Your task to perform on an android device: Search for seafood restaurants on Google Maps Image 0: 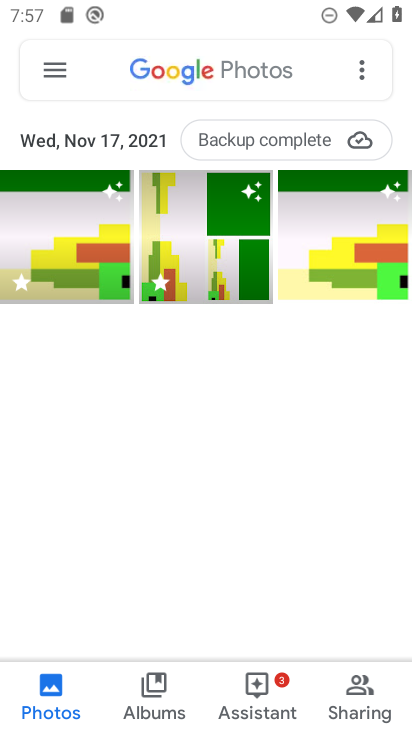
Step 0: press home button
Your task to perform on an android device: Search for seafood restaurants on Google Maps Image 1: 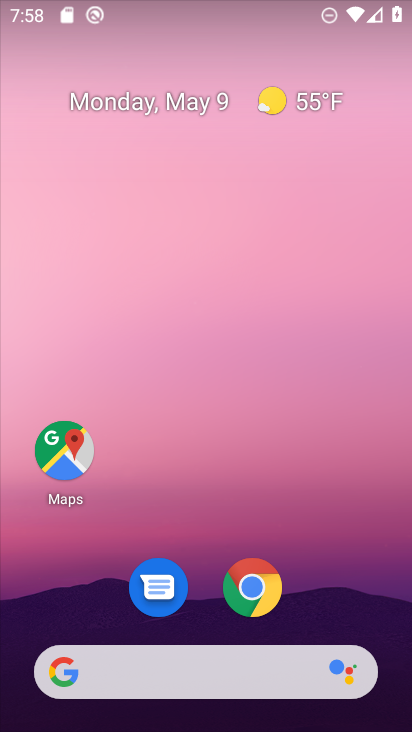
Step 1: drag from (220, 637) to (333, 66)
Your task to perform on an android device: Search for seafood restaurants on Google Maps Image 2: 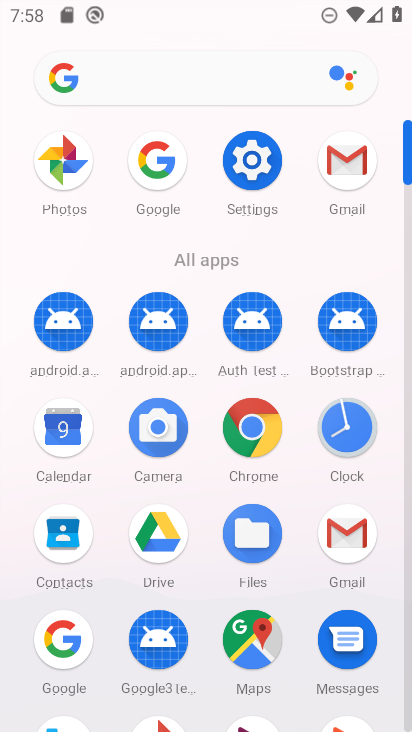
Step 2: click (242, 642)
Your task to perform on an android device: Search for seafood restaurants on Google Maps Image 3: 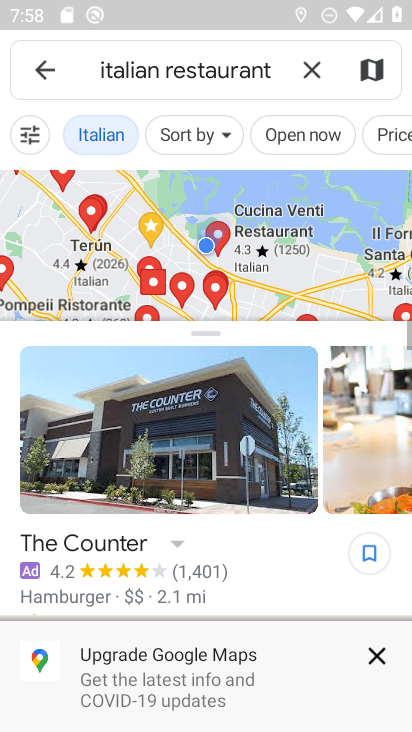
Step 3: click (47, 79)
Your task to perform on an android device: Search for seafood restaurants on Google Maps Image 4: 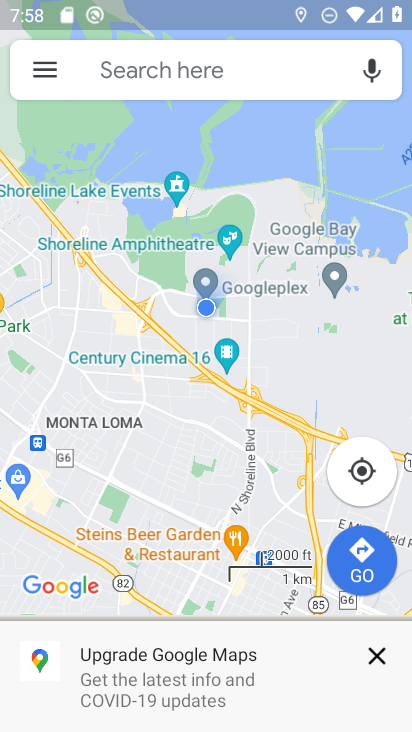
Step 4: click (119, 75)
Your task to perform on an android device: Search for seafood restaurants on Google Maps Image 5: 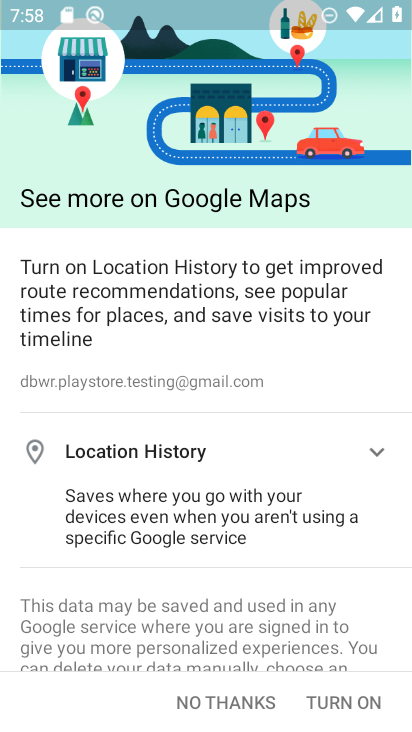
Step 5: click (339, 687)
Your task to perform on an android device: Search for seafood restaurants on Google Maps Image 6: 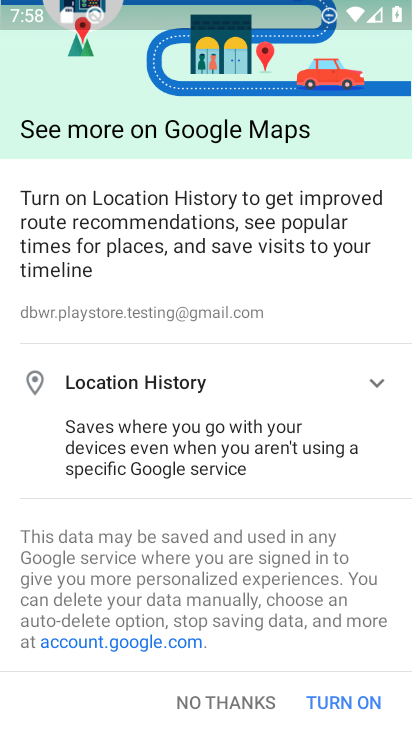
Step 6: click (350, 710)
Your task to perform on an android device: Search for seafood restaurants on Google Maps Image 7: 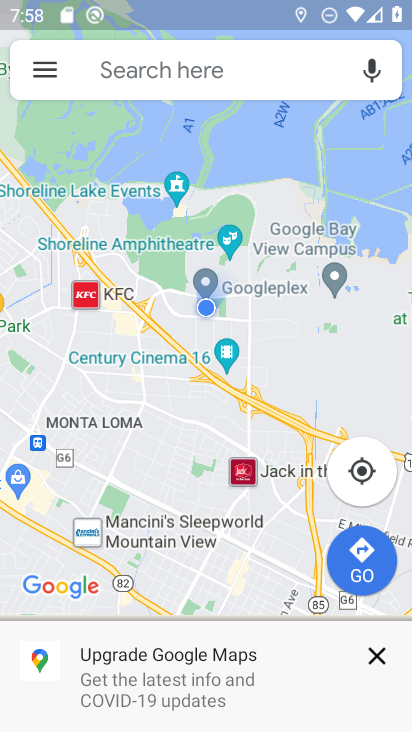
Step 7: click (134, 70)
Your task to perform on an android device: Search for seafood restaurants on Google Maps Image 8: 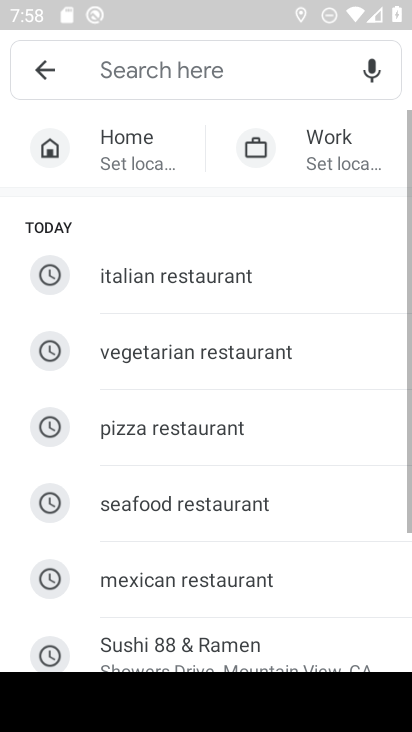
Step 8: click (157, 490)
Your task to perform on an android device: Search for seafood restaurants on Google Maps Image 9: 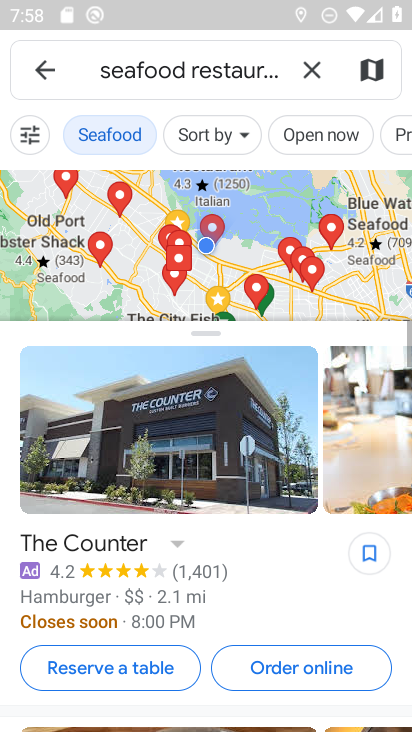
Step 9: task complete